Your task to perform on an android device: Open Google Chrome and open the bookmarks view Image 0: 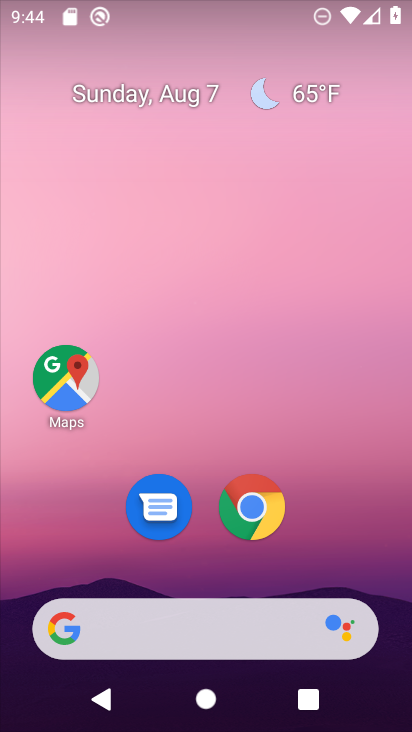
Step 0: click (189, 94)
Your task to perform on an android device: Open Google Chrome and open the bookmarks view Image 1: 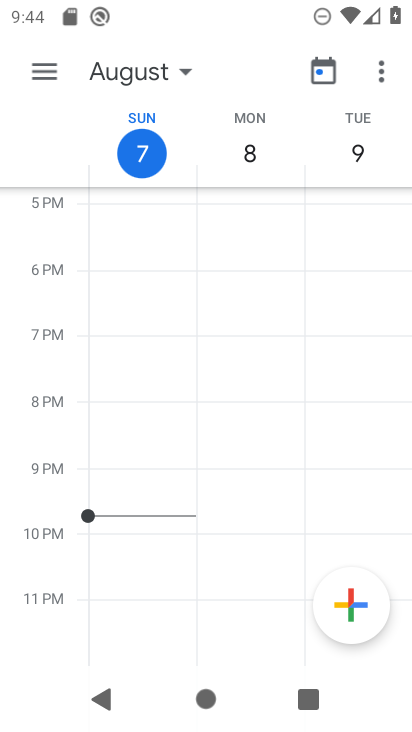
Step 1: press home button
Your task to perform on an android device: Open Google Chrome and open the bookmarks view Image 2: 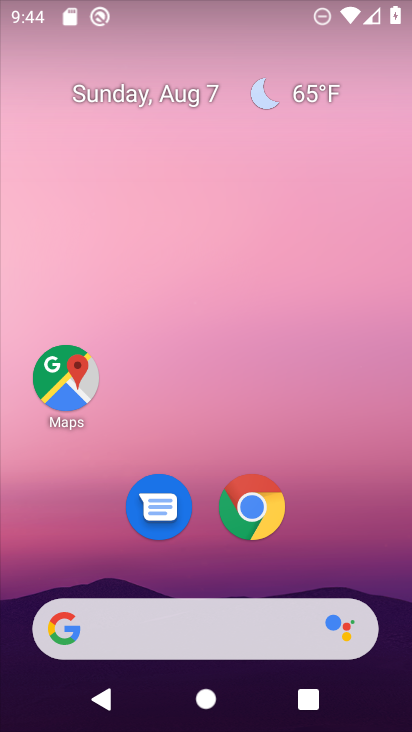
Step 2: drag from (335, 504) to (337, 106)
Your task to perform on an android device: Open Google Chrome and open the bookmarks view Image 3: 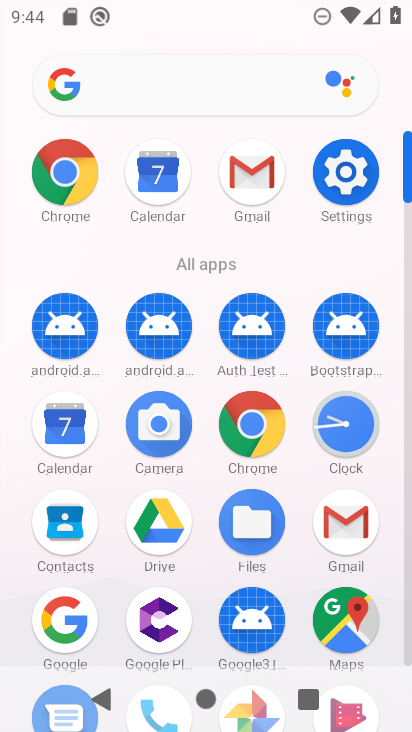
Step 3: click (252, 428)
Your task to perform on an android device: Open Google Chrome and open the bookmarks view Image 4: 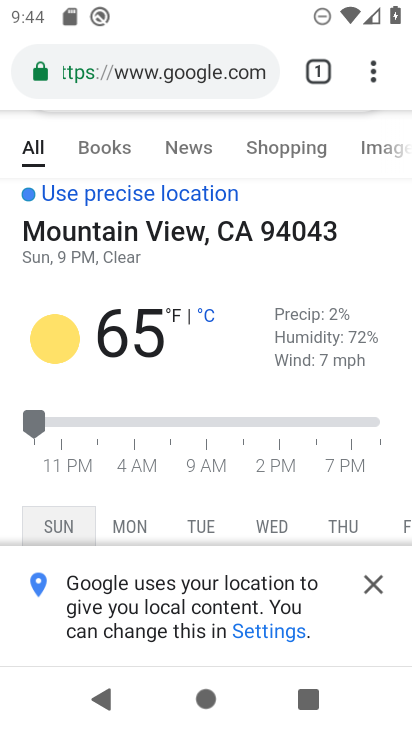
Step 4: task complete